Your task to perform on an android device: turn on data saver in the chrome app Image 0: 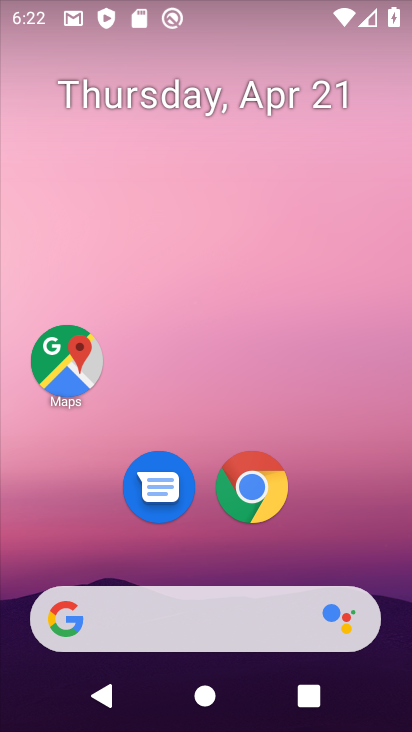
Step 0: drag from (357, 542) to (279, 75)
Your task to perform on an android device: turn on data saver in the chrome app Image 1: 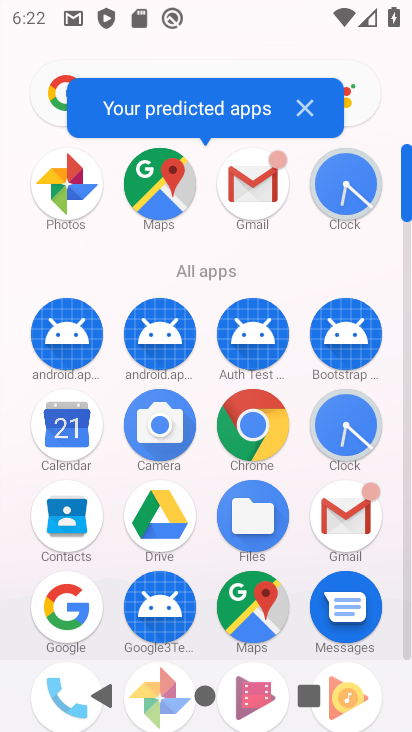
Step 1: drag from (403, 183) to (390, 426)
Your task to perform on an android device: turn on data saver in the chrome app Image 2: 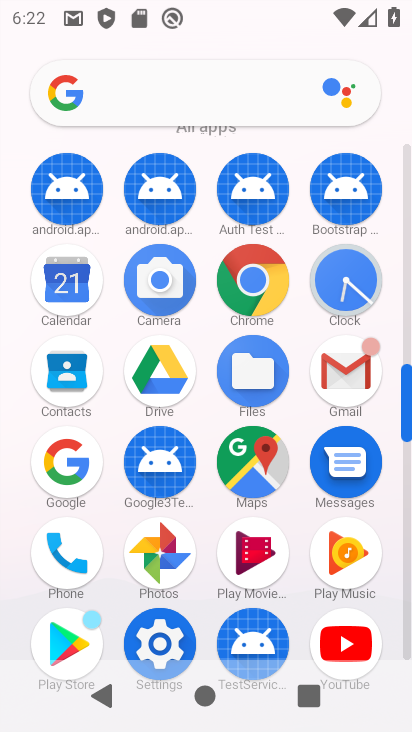
Step 2: click (264, 305)
Your task to perform on an android device: turn on data saver in the chrome app Image 3: 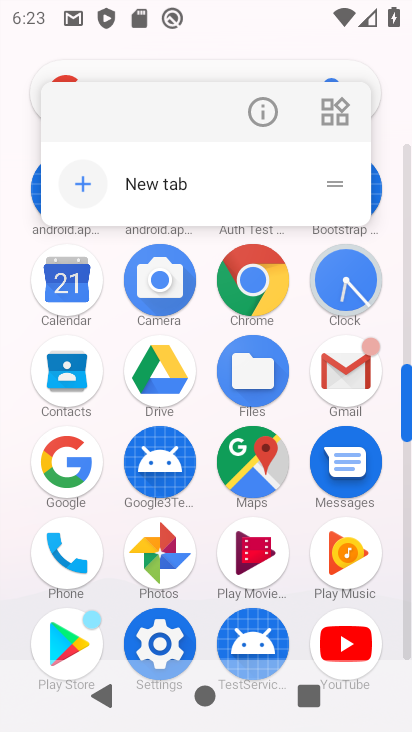
Step 3: click (252, 277)
Your task to perform on an android device: turn on data saver in the chrome app Image 4: 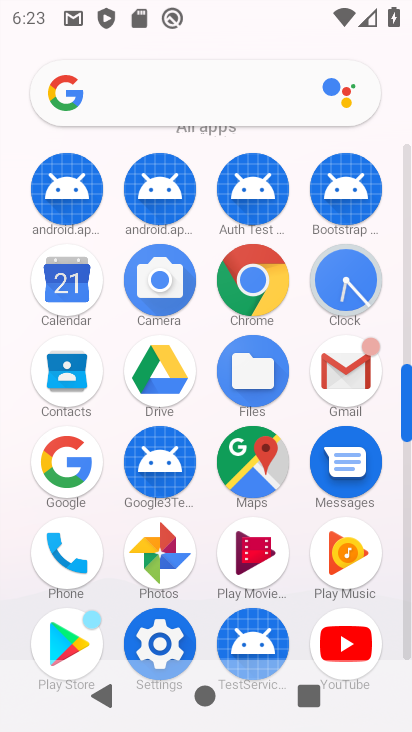
Step 4: click (240, 283)
Your task to perform on an android device: turn on data saver in the chrome app Image 5: 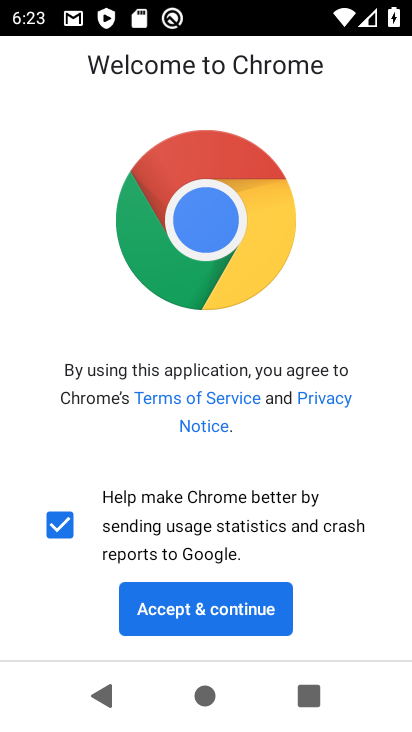
Step 5: click (227, 601)
Your task to perform on an android device: turn on data saver in the chrome app Image 6: 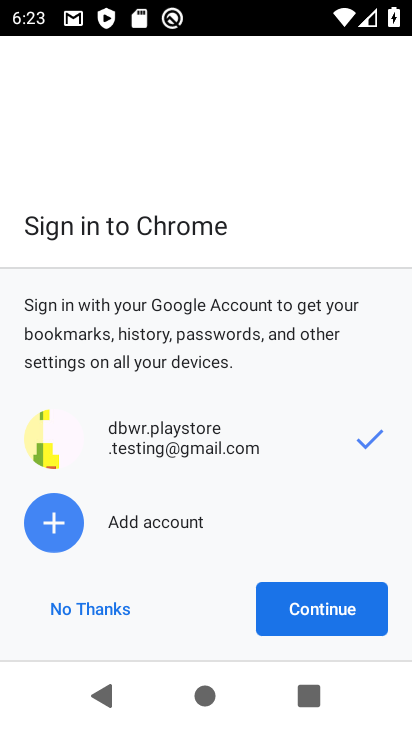
Step 6: click (316, 630)
Your task to perform on an android device: turn on data saver in the chrome app Image 7: 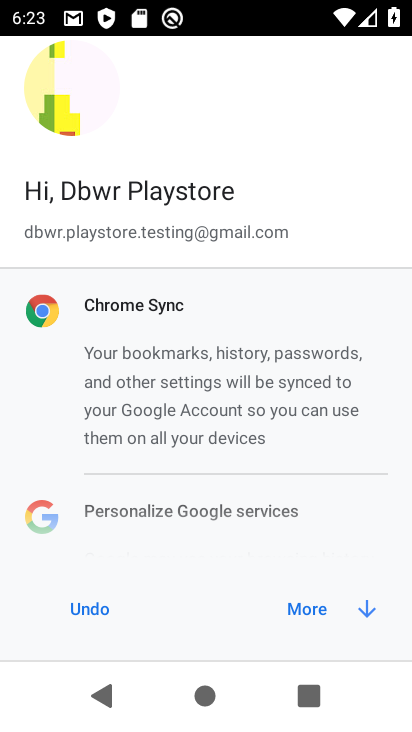
Step 7: click (325, 605)
Your task to perform on an android device: turn on data saver in the chrome app Image 8: 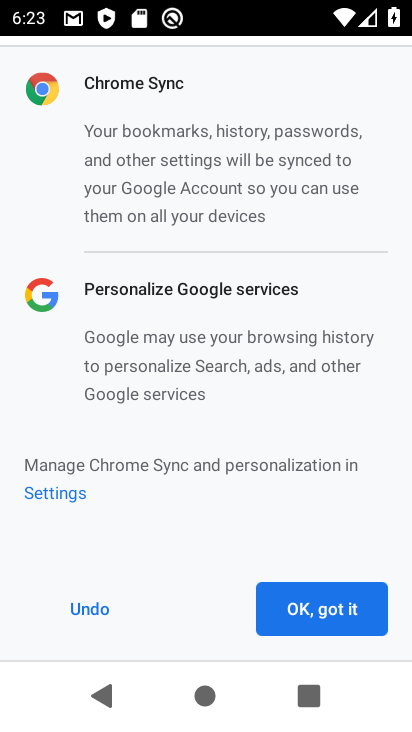
Step 8: click (310, 593)
Your task to perform on an android device: turn on data saver in the chrome app Image 9: 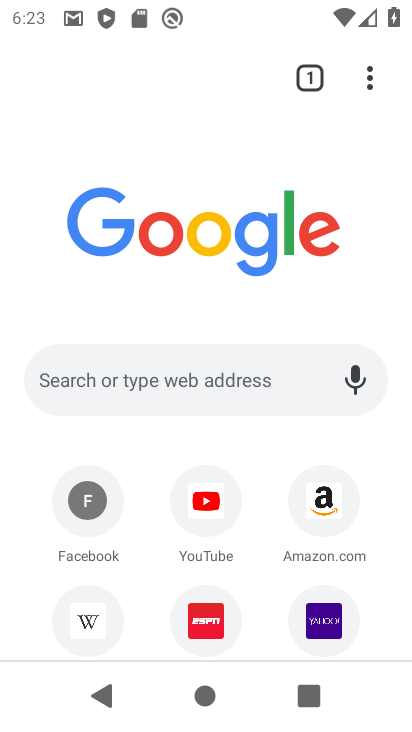
Step 9: click (366, 72)
Your task to perform on an android device: turn on data saver in the chrome app Image 10: 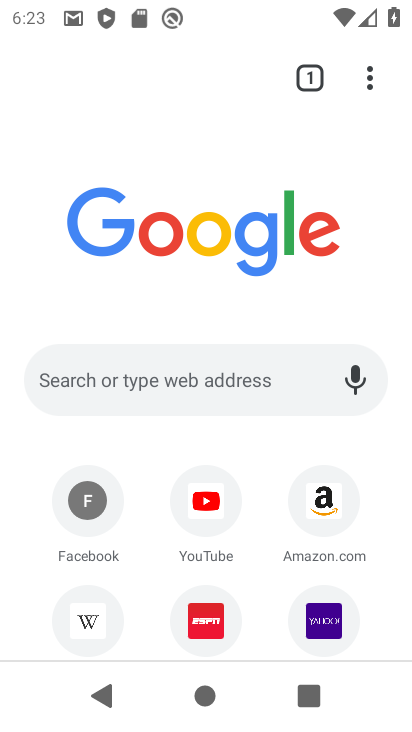
Step 10: click (370, 62)
Your task to perform on an android device: turn on data saver in the chrome app Image 11: 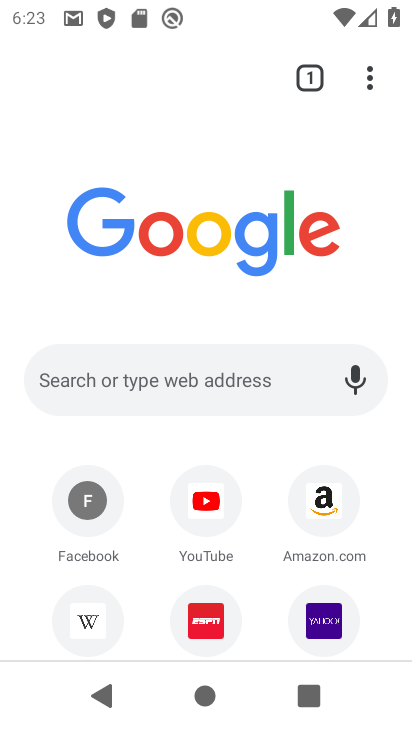
Step 11: click (366, 86)
Your task to perform on an android device: turn on data saver in the chrome app Image 12: 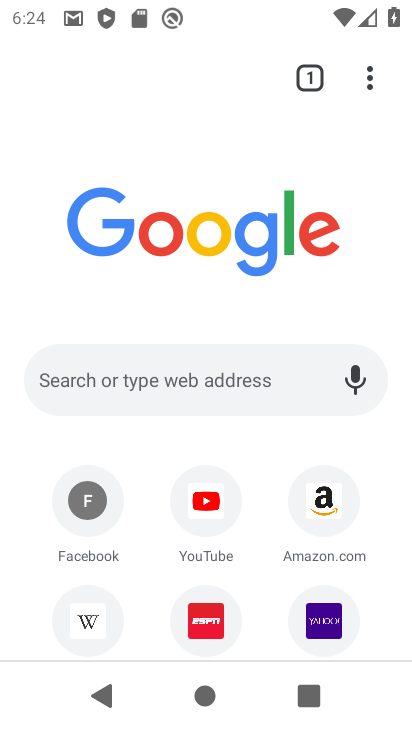
Step 12: drag from (366, 86) to (134, 548)
Your task to perform on an android device: turn on data saver in the chrome app Image 13: 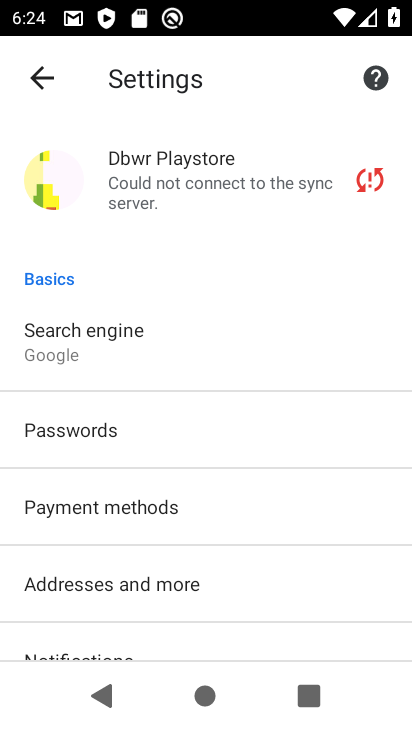
Step 13: drag from (321, 601) to (281, 347)
Your task to perform on an android device: turn on data saver in the chrome app Image 14: 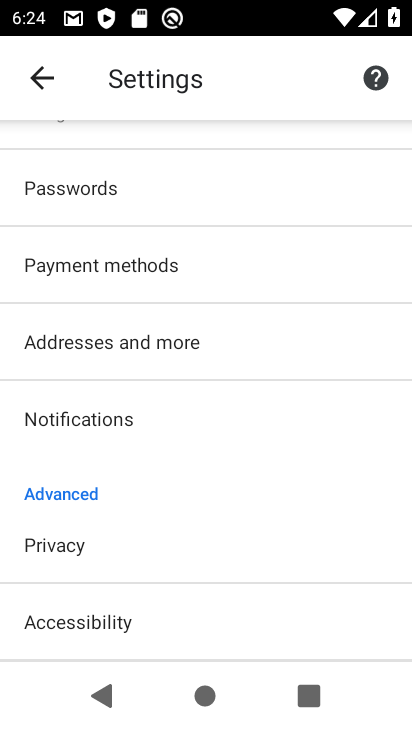
Step 14: drag from (269, 586) to (185, 168)
Your task to perform on an android device: turn on data saver in the chrome app Image 15: 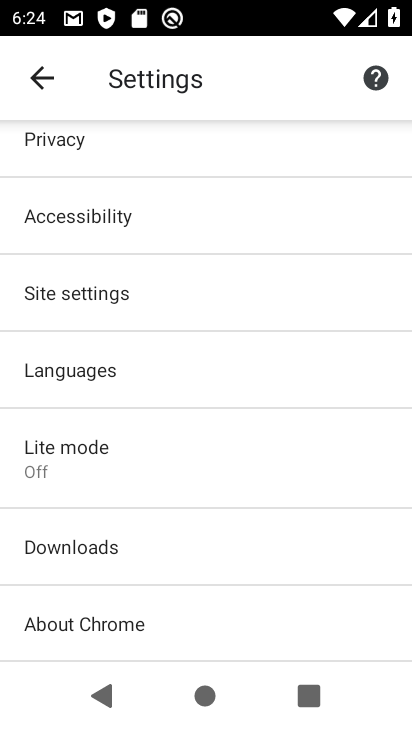
Step 15: click (48, 480)
Your task to perform on an android device: turn on data saver in the chrome app Image 16: 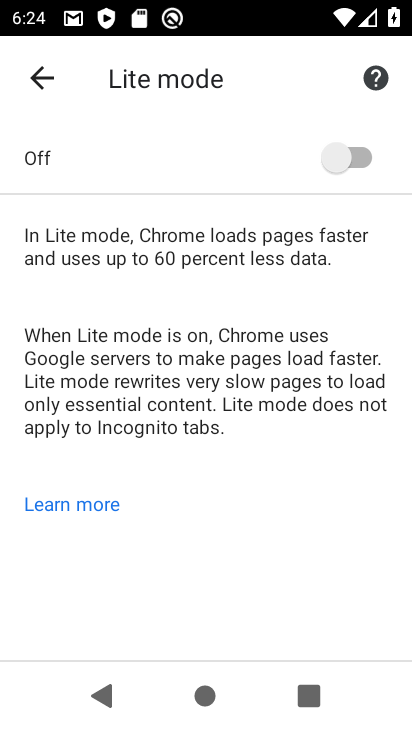
Step 16: click (351, 146)
Your task to perform on an android device: turn on data saver in the chrome app Image 17: 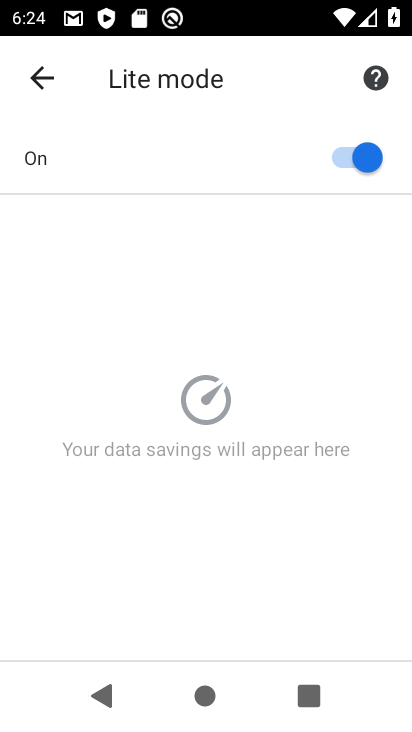
Step 17: task complete